Your task to perform on an android device: Open location settings Image 0: 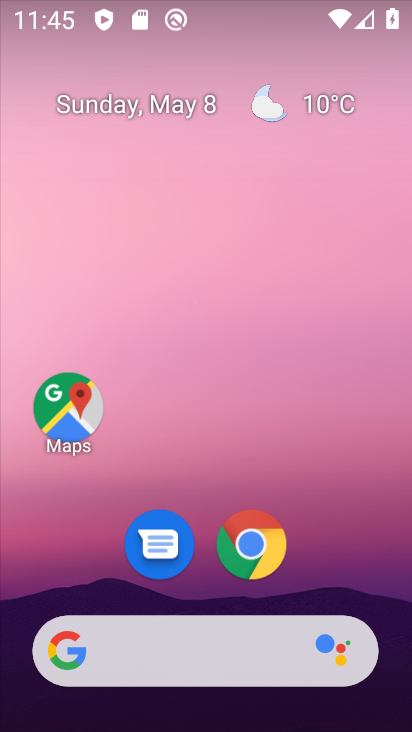
Step 0: drag from (194, 715) to (202, 130)
Your task to perform on an android device: Open location settings Image 1: 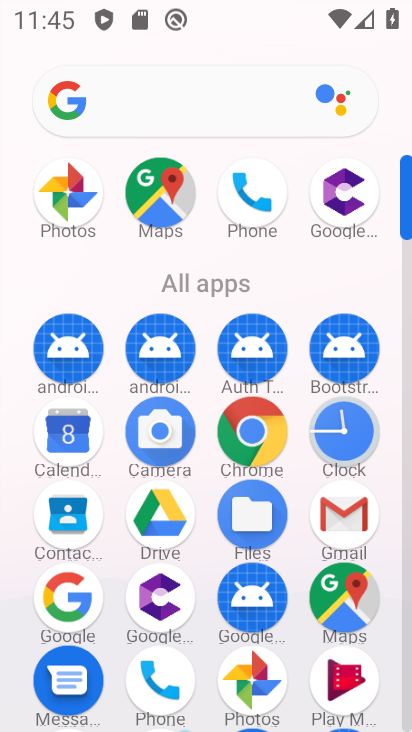
Step 1: drag from (202, 374) to (195, 213)
Your task to perform on an android device: Open location settings Image 2: 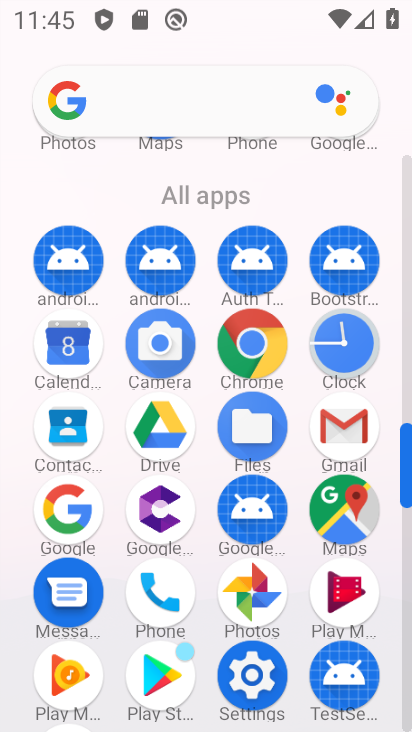
Step 2: click (253, 672)
Your task to perform on an android device: Open location settings Image 3: 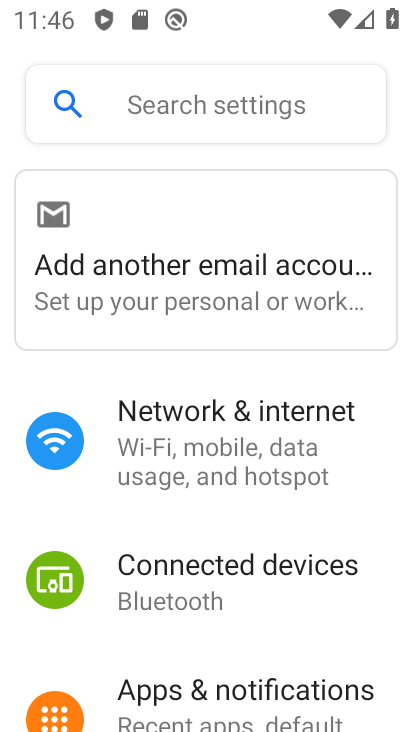
Step 3: drag from (199, 670) to (201, 291)
Your task to perform on an android device: Open location settings Image 4: 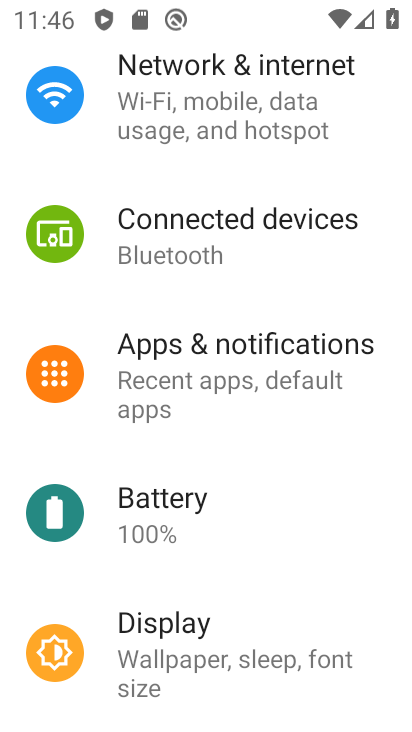
Step 4: drag from (224, 716) to (227, 388)
Your task to perform on an android device: Open location settings Image 5: 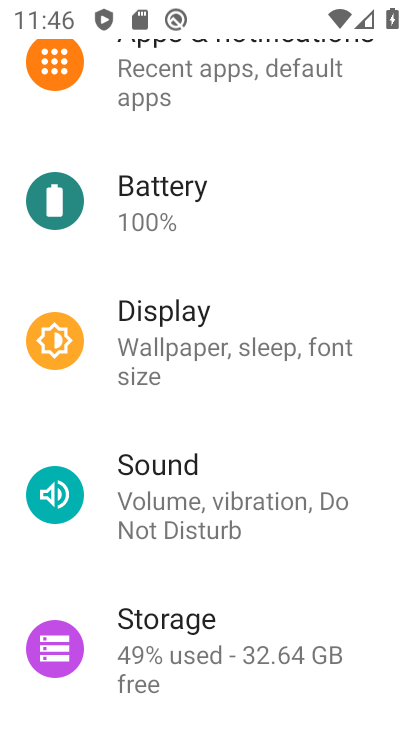
Step 5: drag from (260, 471) to (249, 190)
Your task to perform on an android device: Open location settings Image 6: 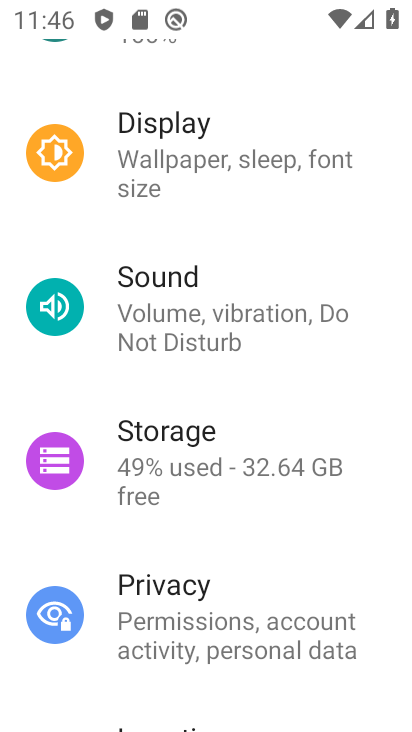
Step 6: drag from (178, 688) to (163, 245)
Your task to perform on an android device: Open location settings Image 7: 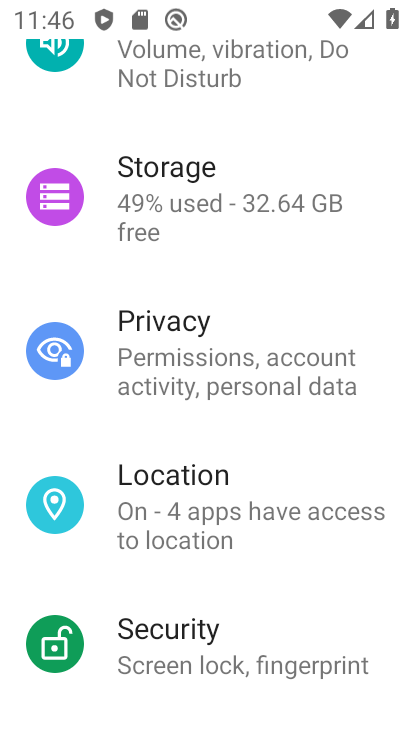
Step 7: drag from (204, 697) to (204, 303)
Your task to perform on an android device: Open location settings Image 8: 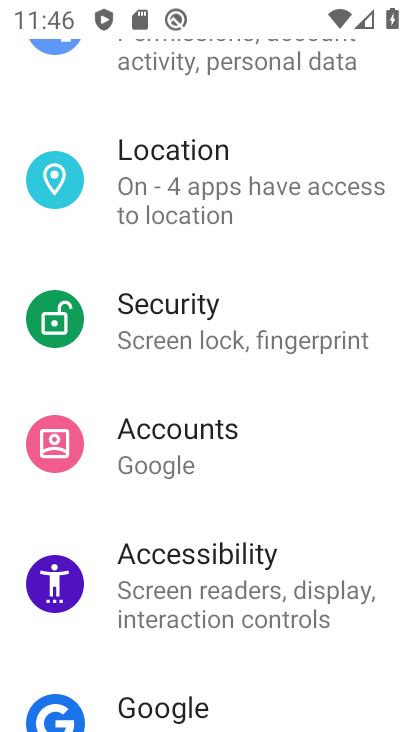
Step 8: click (146, 179)
Your task to perform on an android device: Open location settings Image 9: 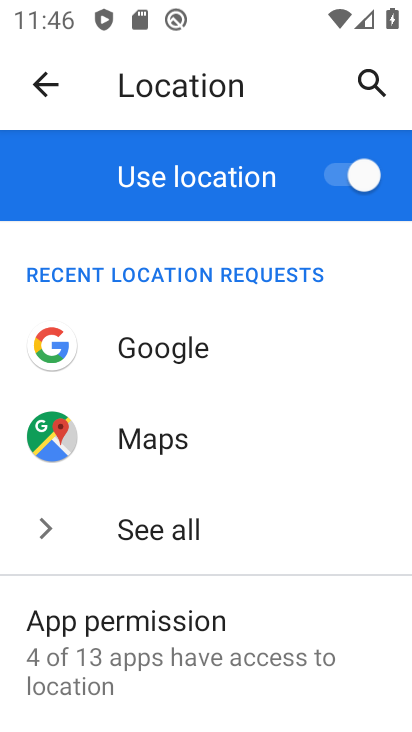
Step 9: task complete